Your task to perform on an android device: What is the recent news? Image 0: 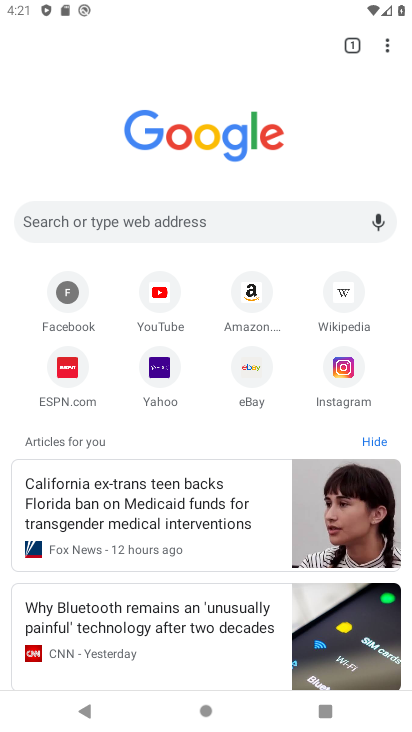
Step 0: press home button
Your task to perform on an android device: What is the recent news? Image 1: 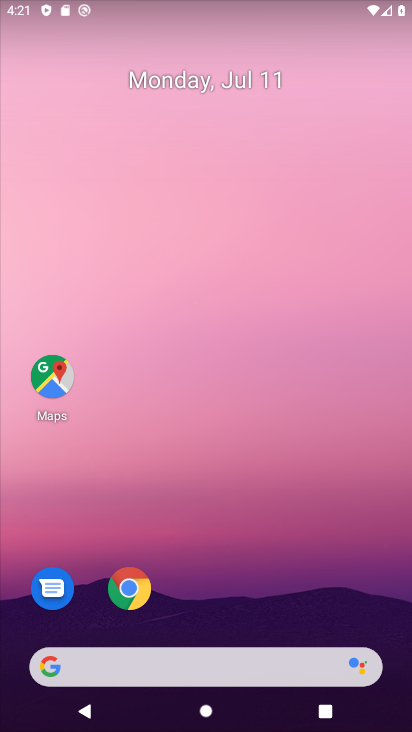
Step 1: click (139, 664)
Your task to perform on an android device: What is the recent news? Image 2: 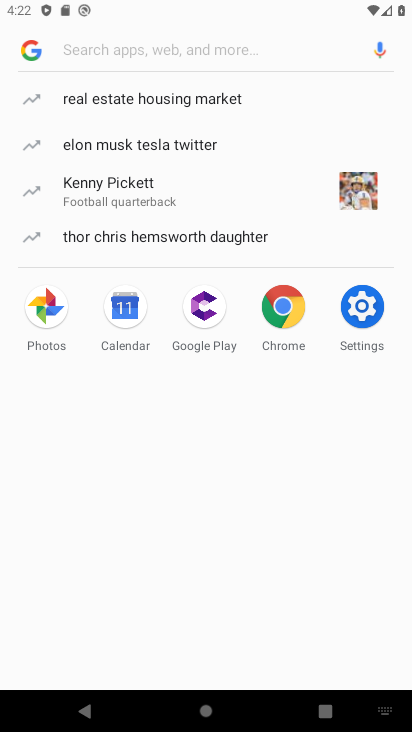
Step 2: type "What is the recent news?"
Your task to perform on an android device: What is the recent news? Image 3: 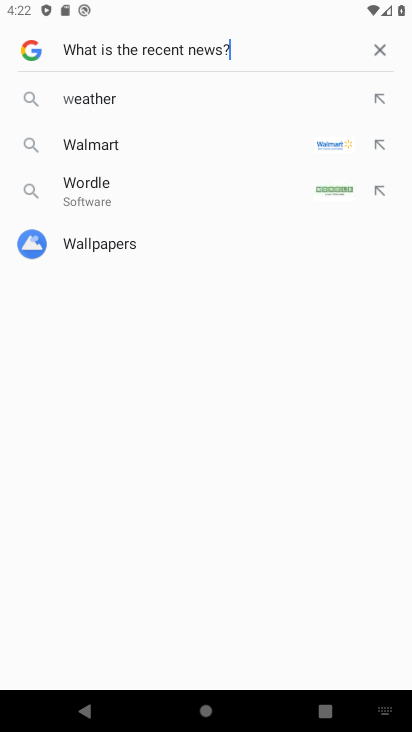
Step 3: type ""
Your task to perform on an android device: What is the recent news? Image 4: 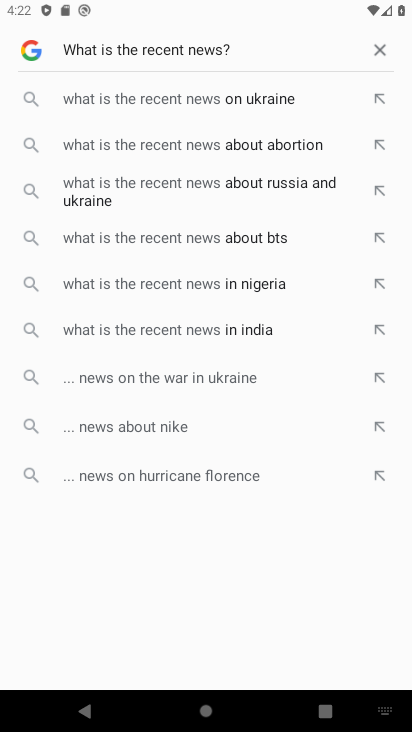
Step 4: type ""
Your task to perform on an android device: What is the recent news? Image 5: 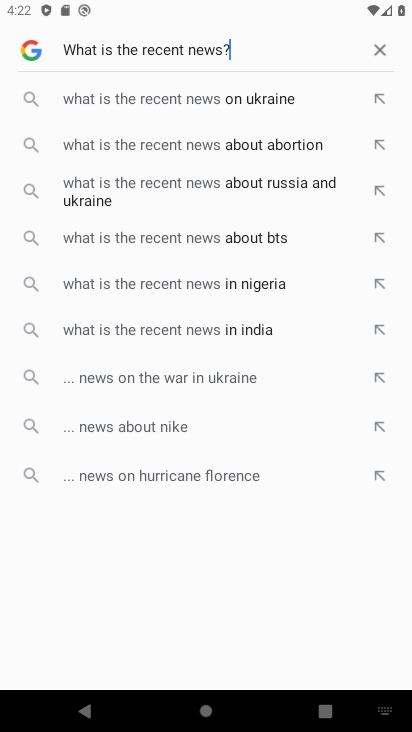
Step 5: type ""
Your task to perform on an android device: What is the recent news? Image 6: 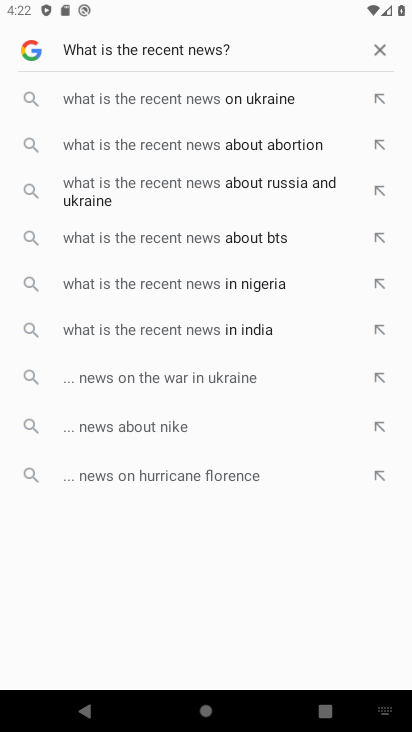
Step 6: type "  "
Your task to perform on an android device: What is the recent news? Image 7: 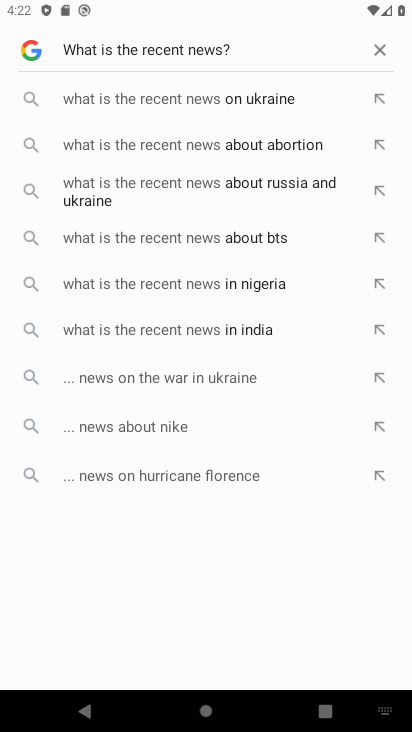
Step 7: task complete